Your task to perform on an android device: Open network settings Image 0: 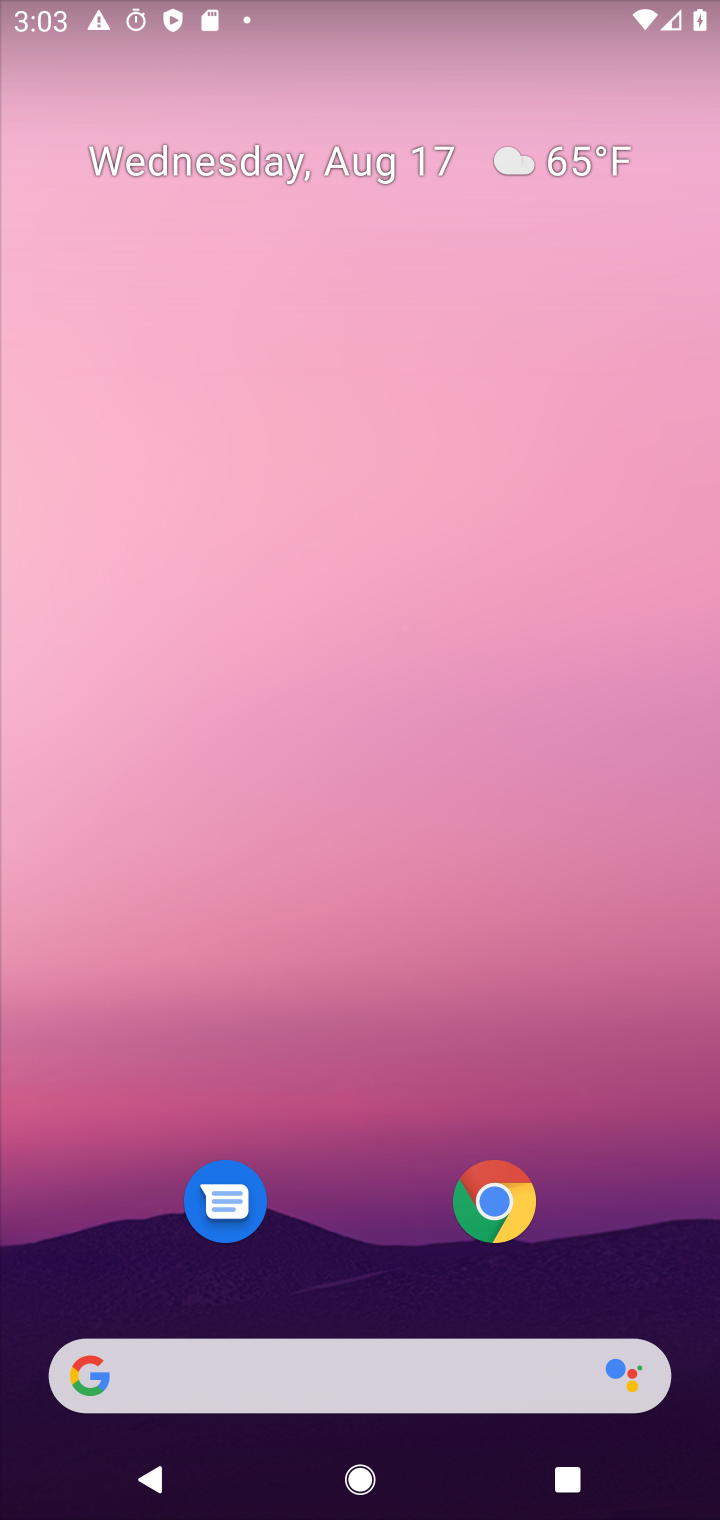
Step 0: drag from (402, 758) to (382, 44)
Your task to perform on an android device: Open network settings Image 1: 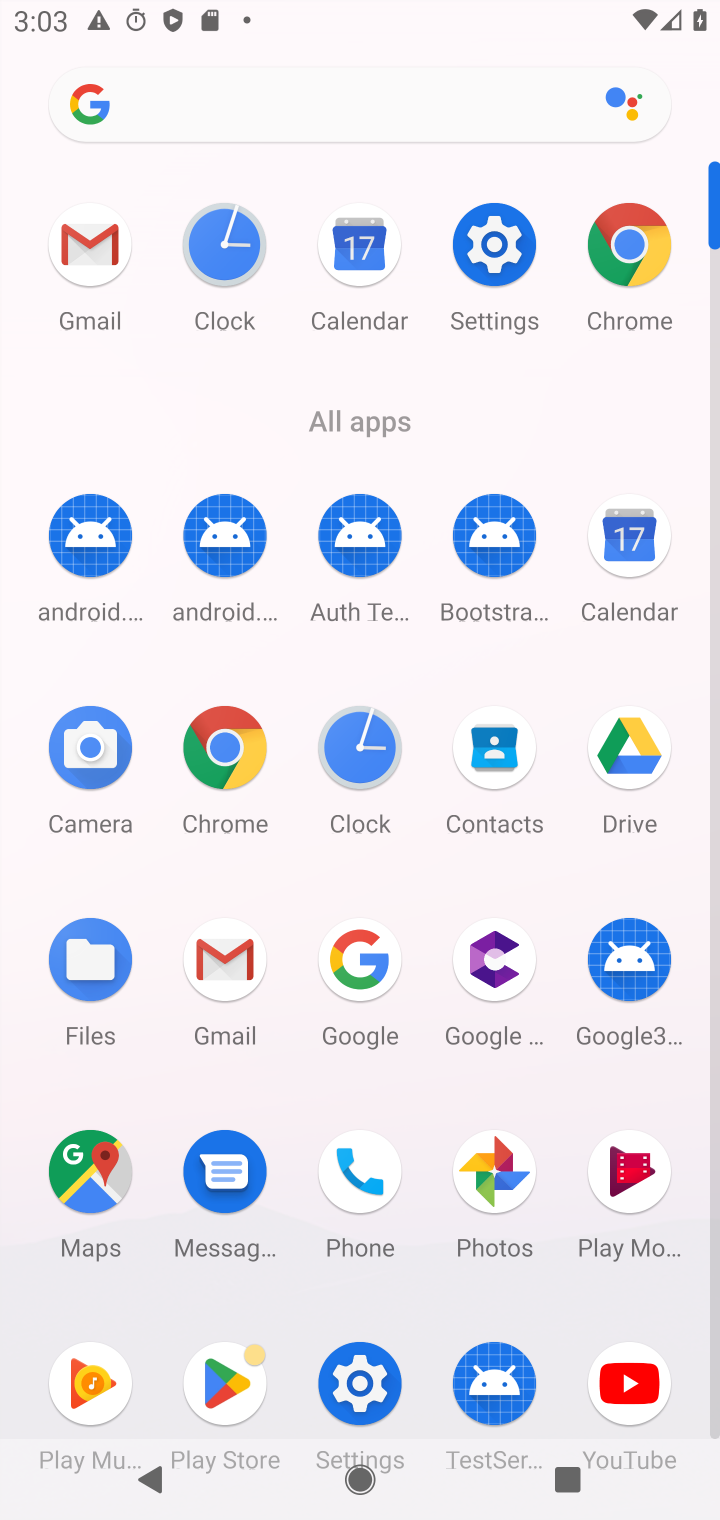
Step 1: click (513, 244)
Your task to perform on an android device: Open network settings Image 2: 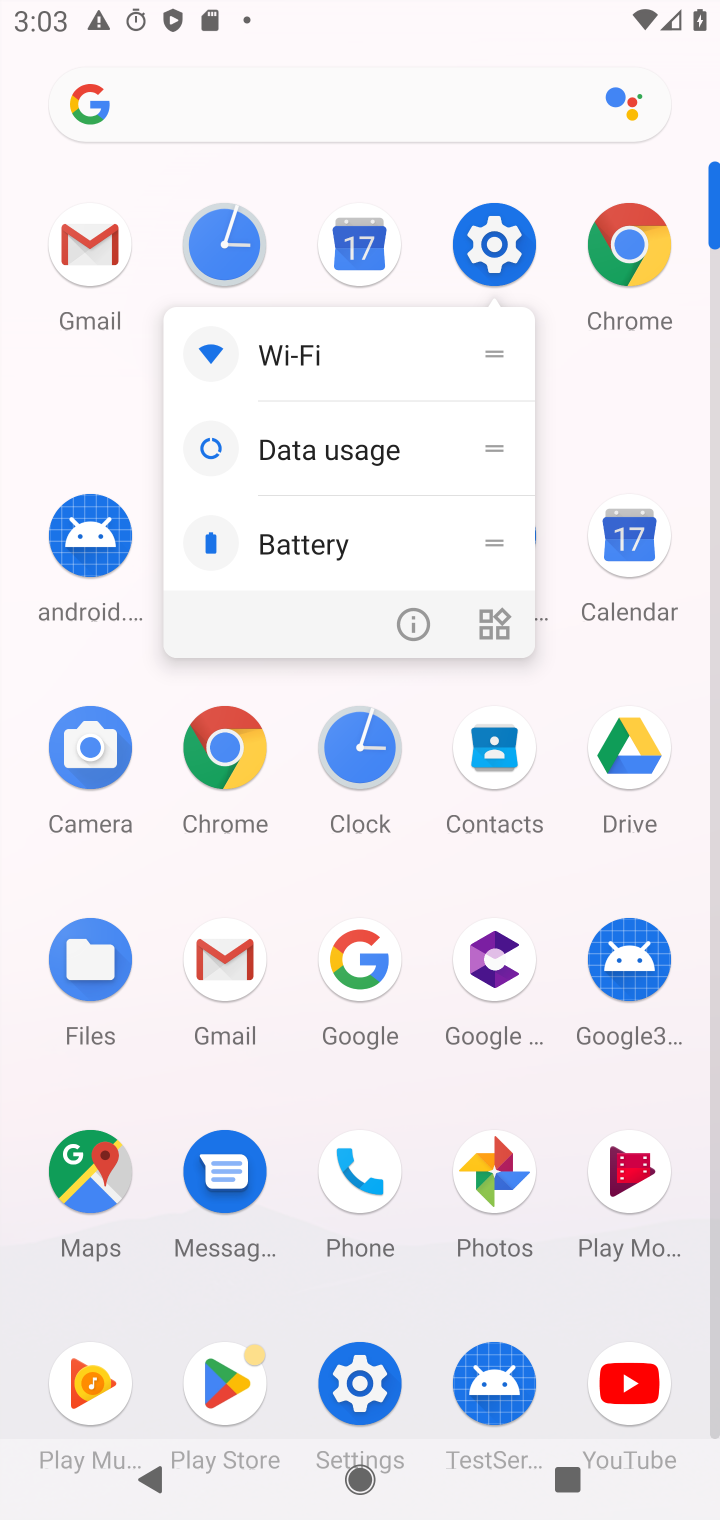
Step 2: click (507, 242)
Your task to perform on an android device: Open network settings Image 3: 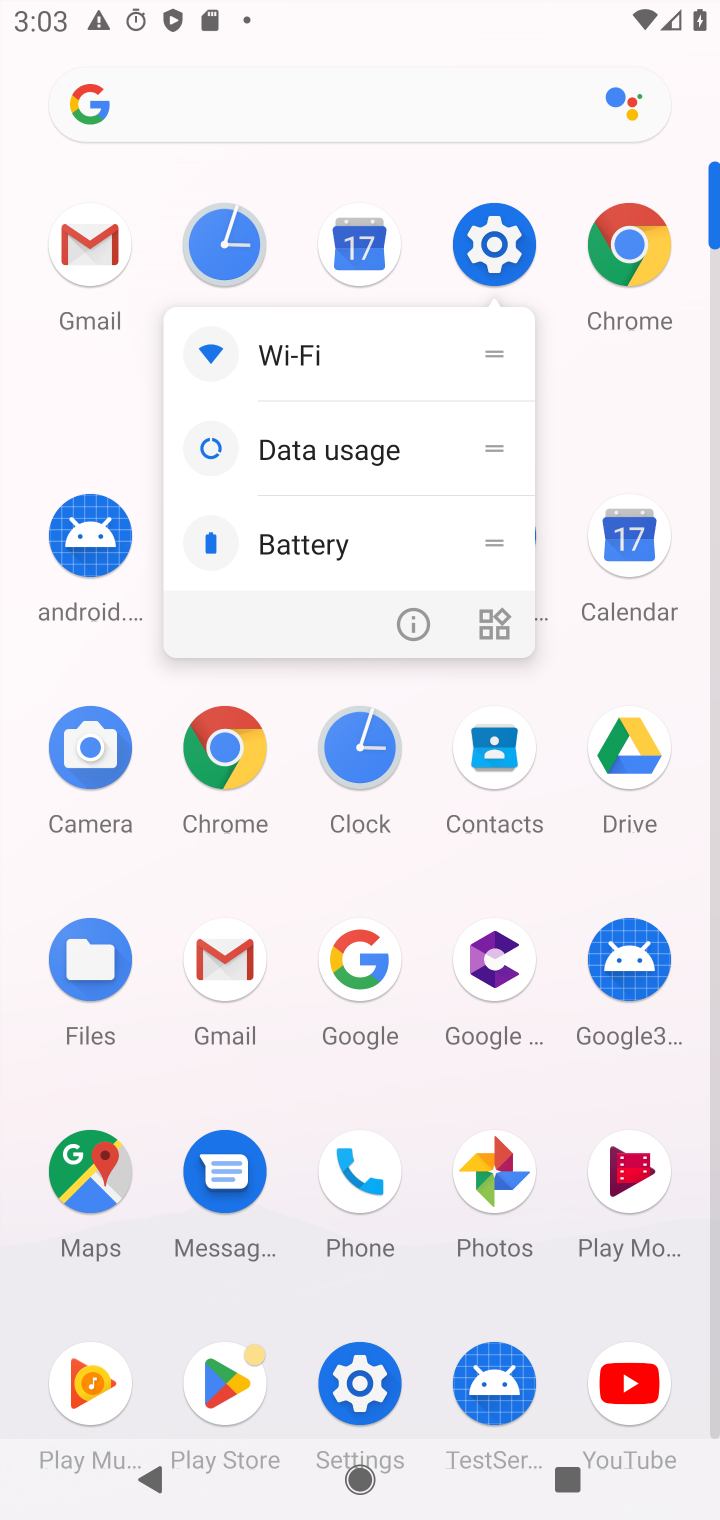
Step 3: click (497, 242)
Your task to perform on an android device: Open network settings Image 4: 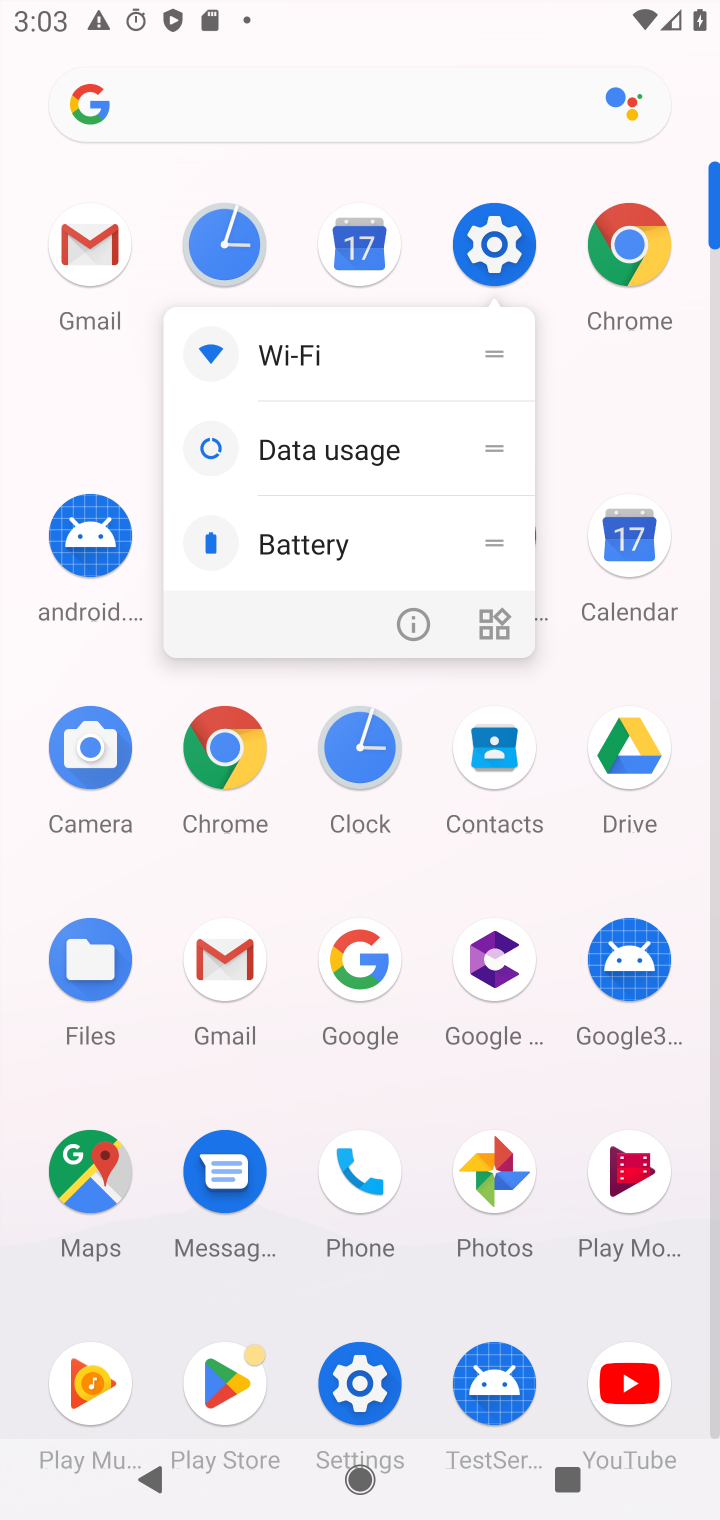
Step 4: click (507, 226)
Your task to perform on an android device: Open network settings Image 5: 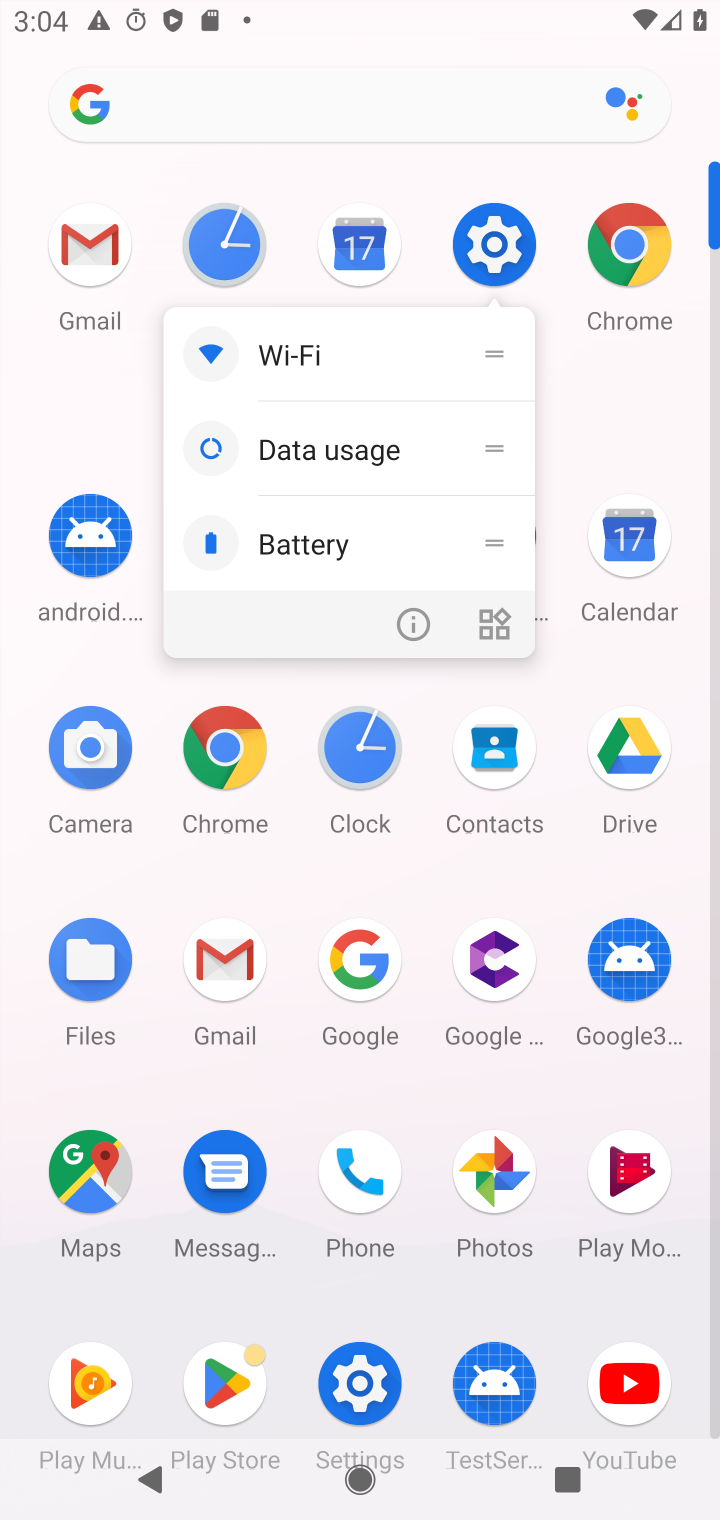
Step 5: click (496, 238)
Your task to perform on an android device: Open network settings Image 6: 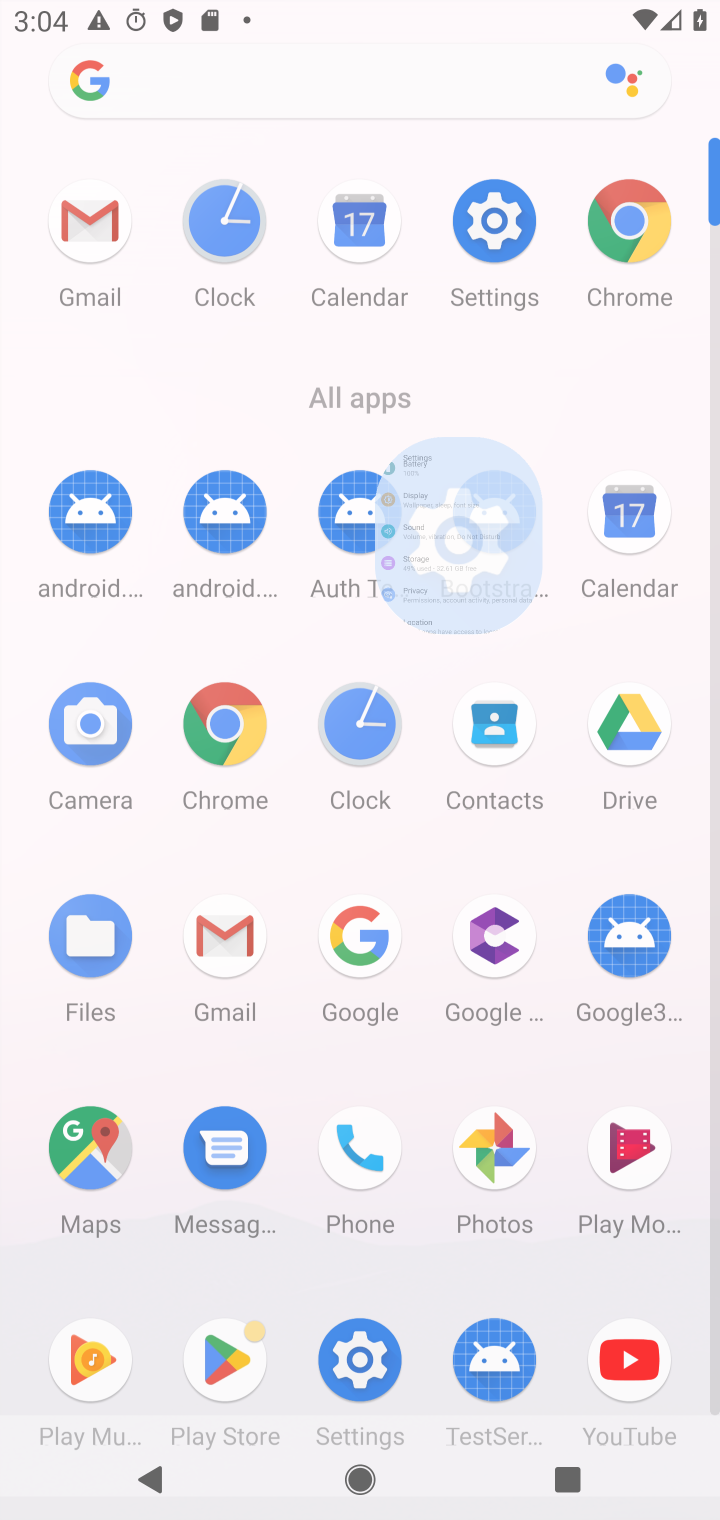
Step 6: click (496, 238)
Your task to perform on an android device: Open network settings Image 7: 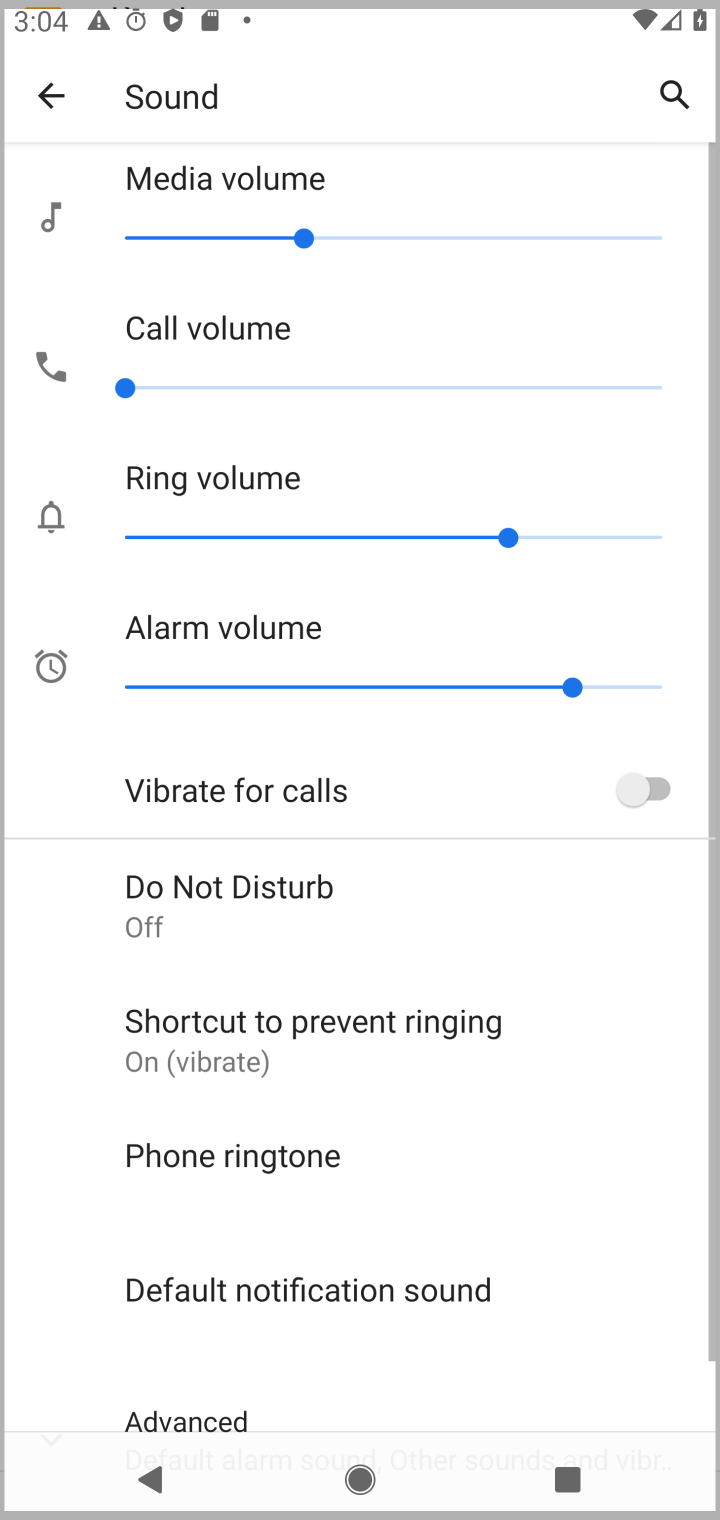
Step 7: press back button
Your task to perform on an android device: Open network settings Image 8: 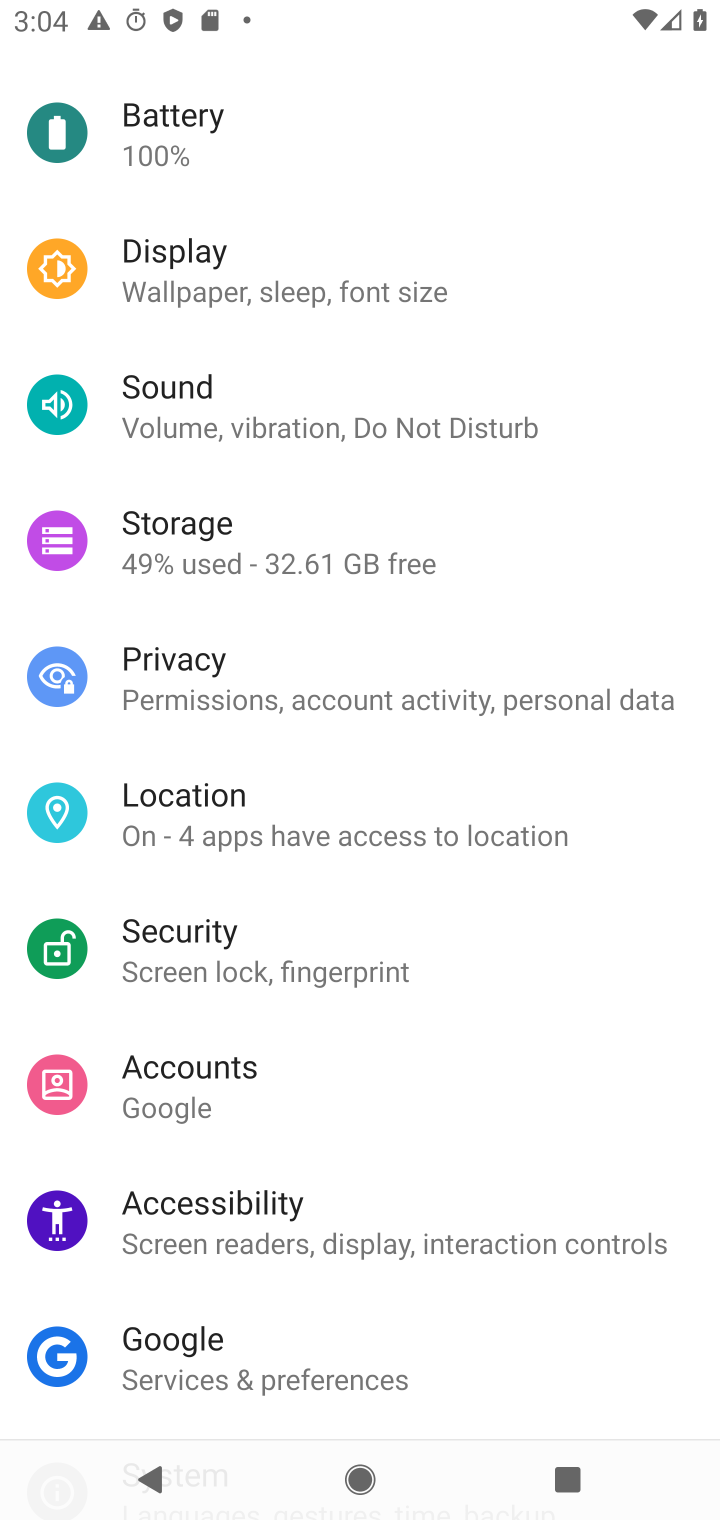
Step 8: drag from (399, 238) to (307, 1315)
Your task to perform on an android device: Open network settings Image 9: 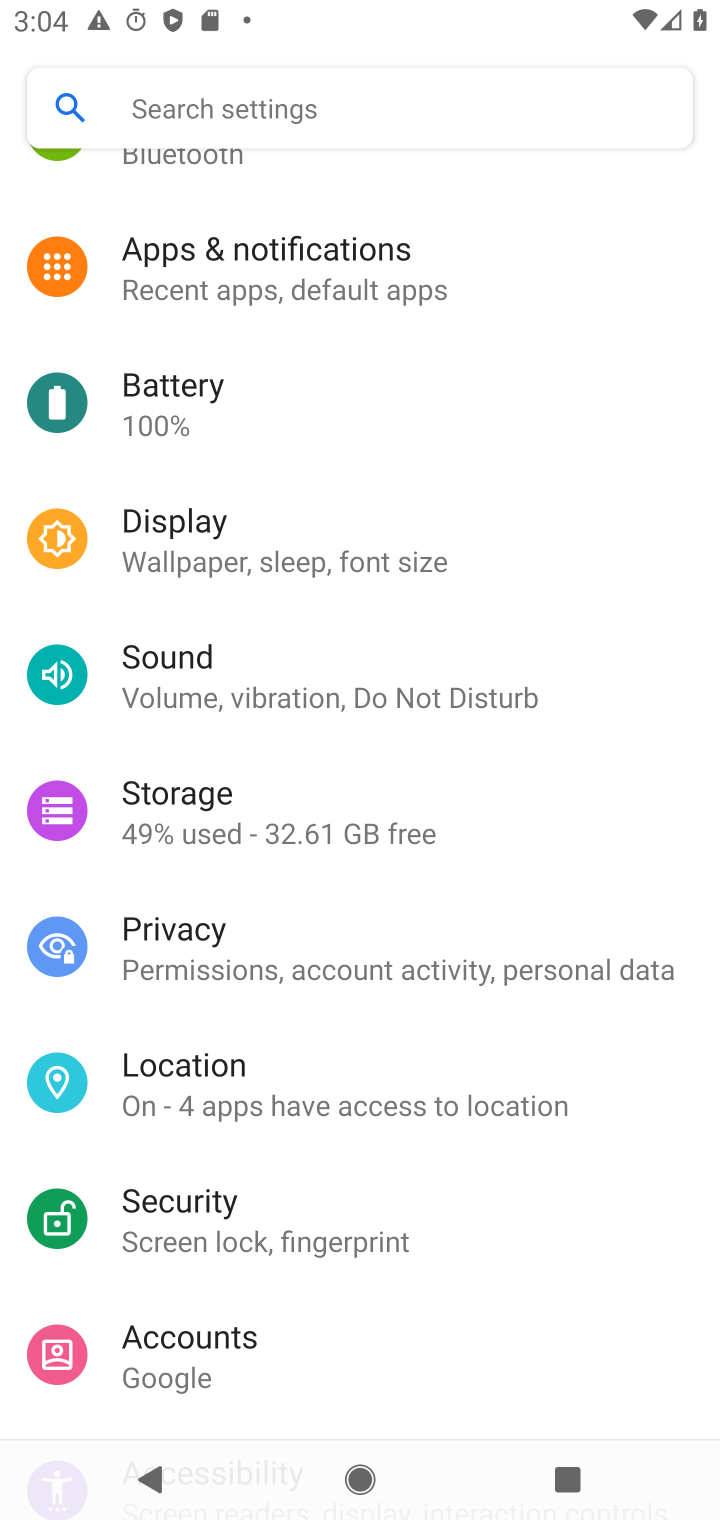
Step 9: drag from (357, 489) to (317, 1440)
Your task to perform on an android device: Open network settings Image 10: 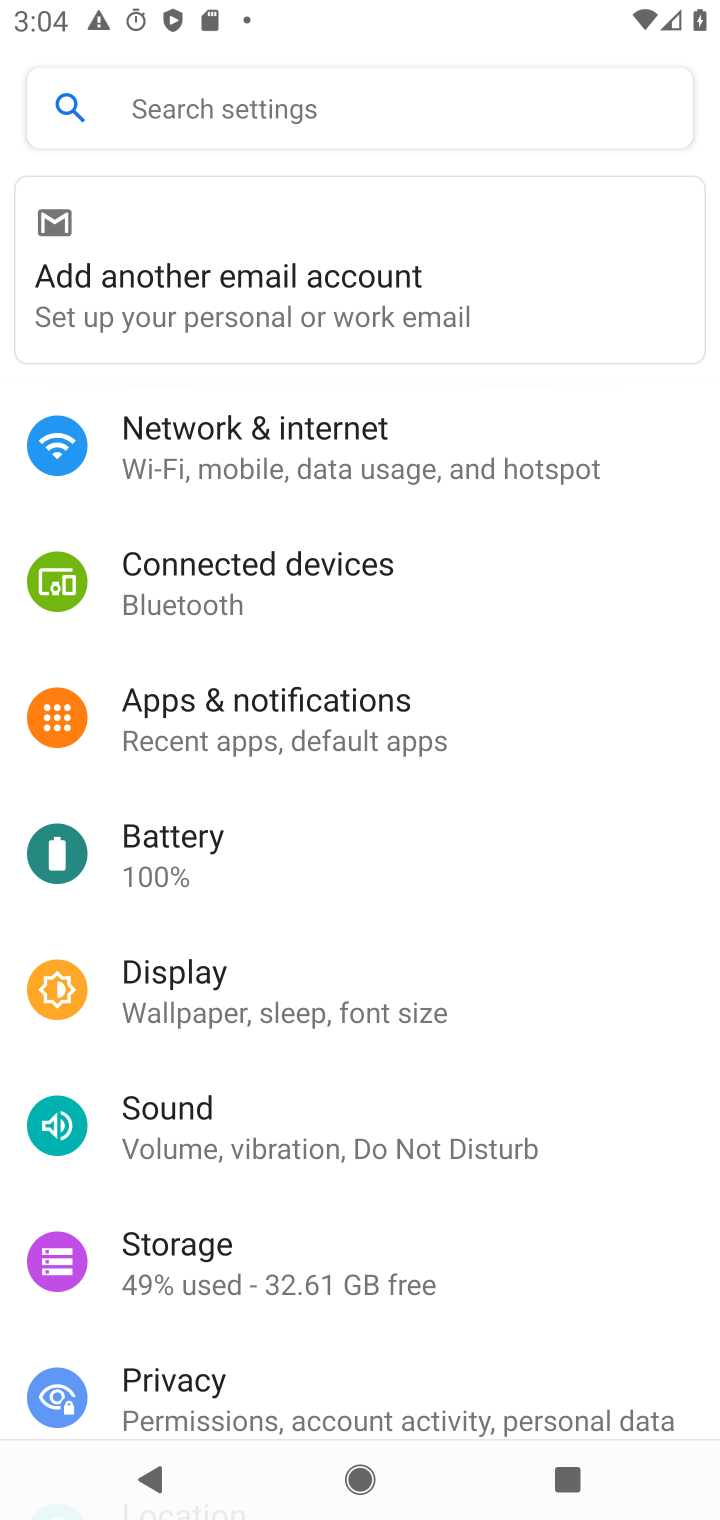
Step 10: click (301, 401)
Your task to perform on an android device: Open network settings Image 11: 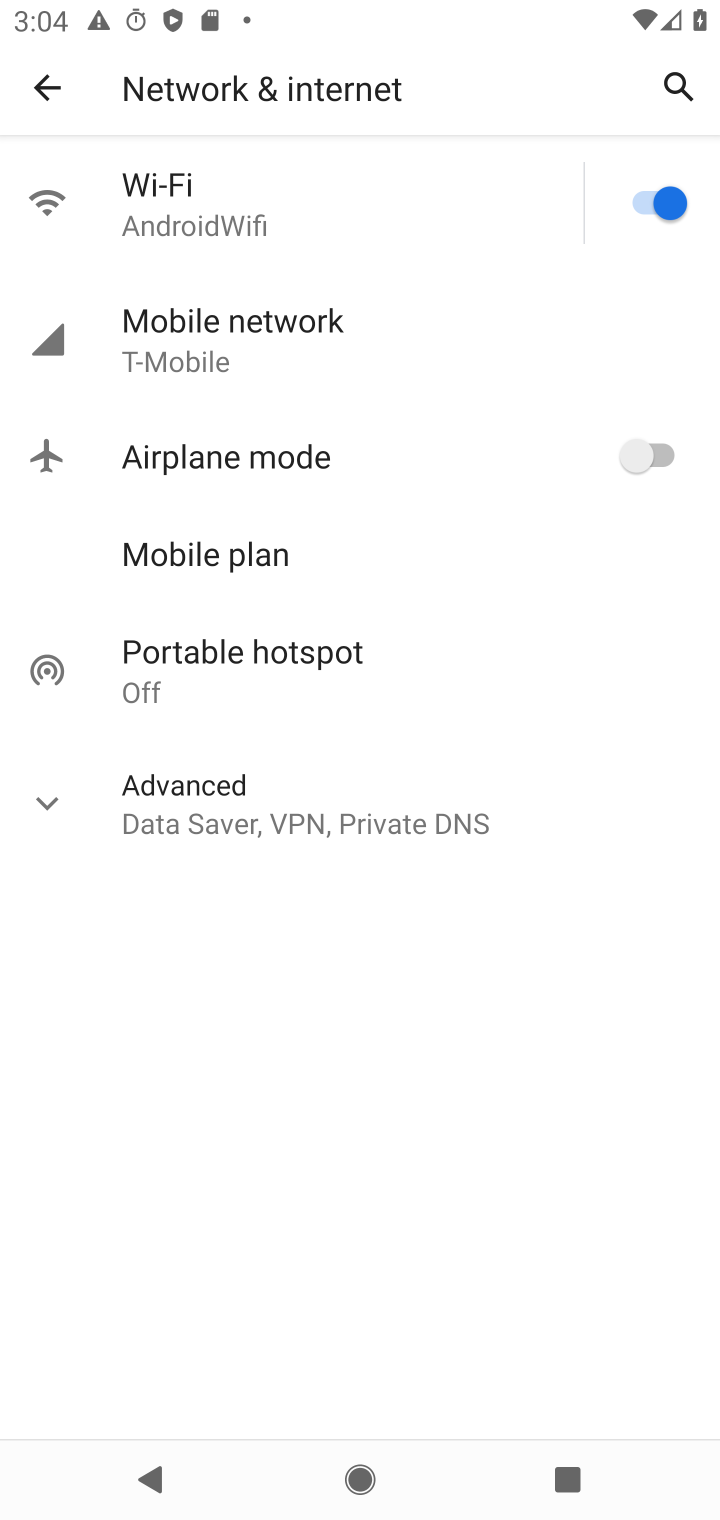
Step 11: task complete